Your task to perform on an android device: Turn on the flashlight Image 0: 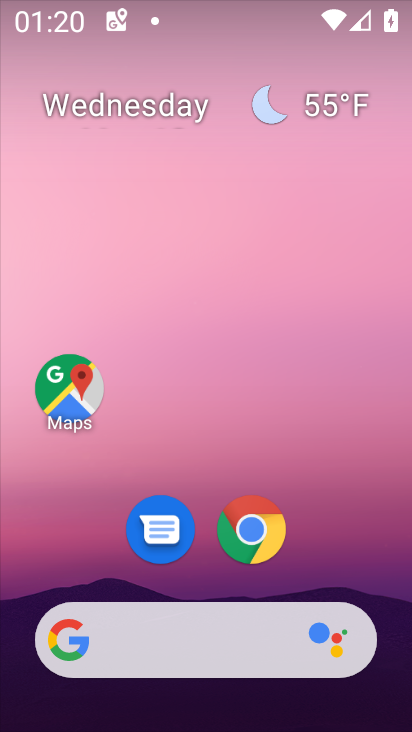
Step 0: drag from (224, 725) to (215, 162)
Your task to perform on an android device: Turn on the flashlight Image 1: 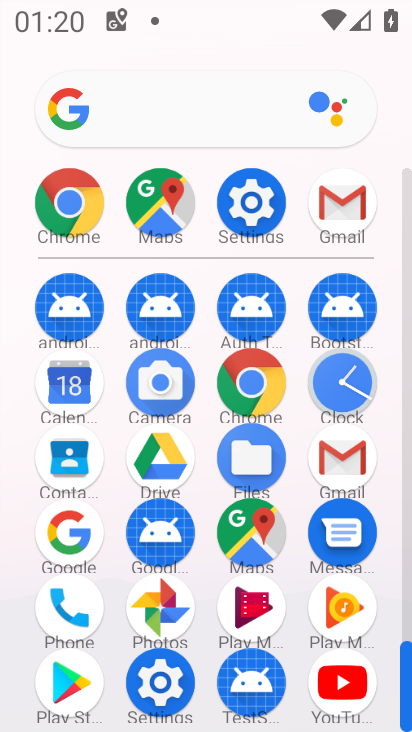
Step 1: click (252, 201)
Your task to perform on an android device: Turn on the flashlight Image 2: 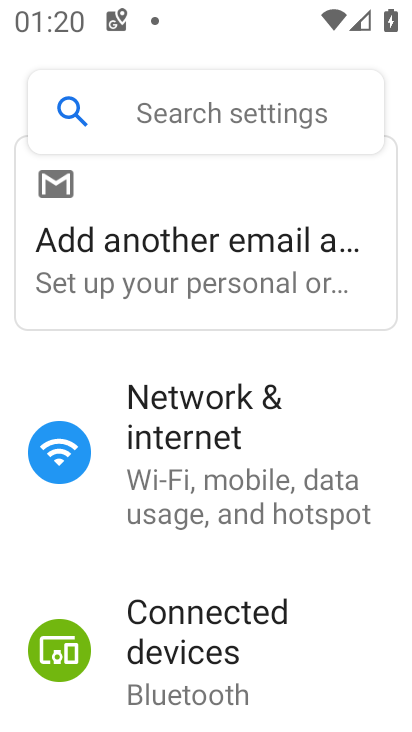
Step 2: task complete